Your task to perform on an android device: Open wifi settings Image 0: 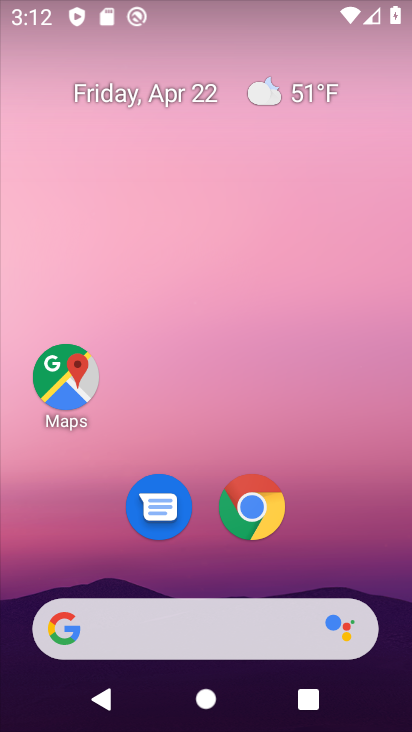
Step 0: drag from (211, 589) to (373, 75)
Your task to perform on an android device: Open wifi settings Image 1: 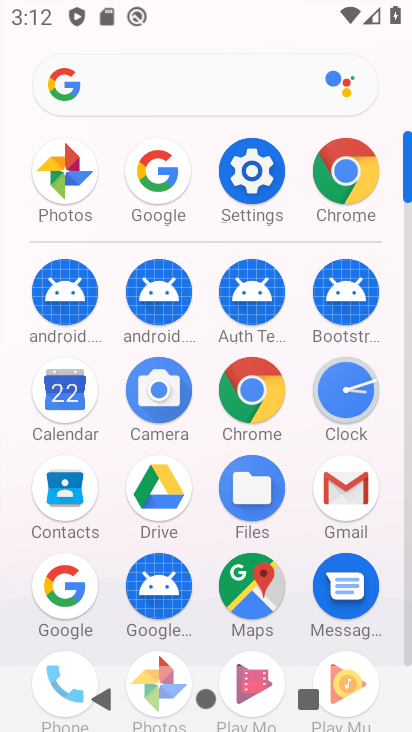
Step 1: click (263, 175)
Your task to perform on an android device: Open wifi settings Image 2: 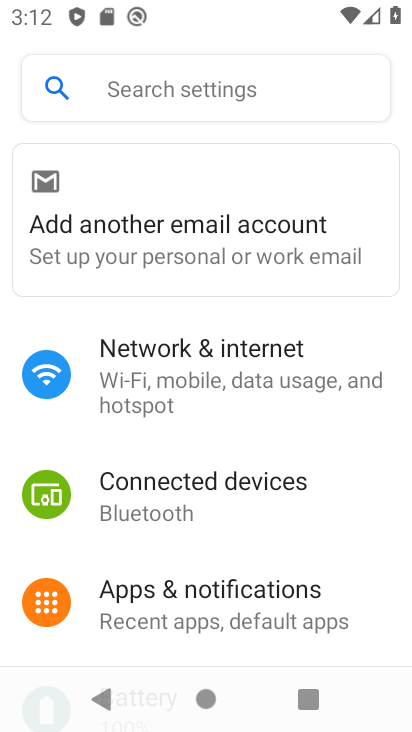
Step 2: click (173, 339)
Your task to perform on an android device: Open wifi settings Image 3: 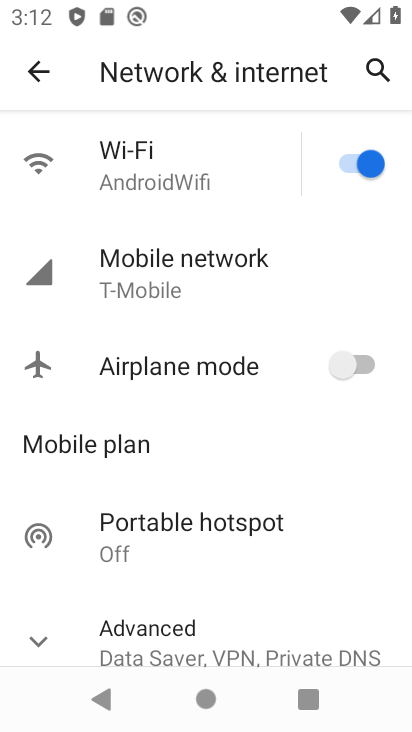
Step 3: click (121, 171)
Your task to perform on an android device: Open wifi settings Image 4: 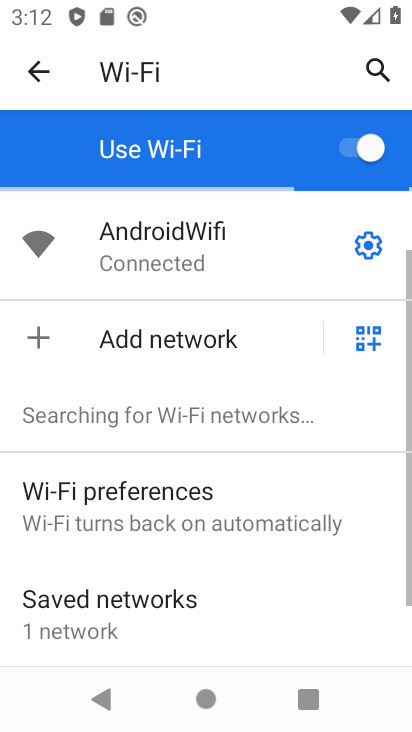
Step 4: task complete